Your task to perform on an android device: Open settings Image 0: 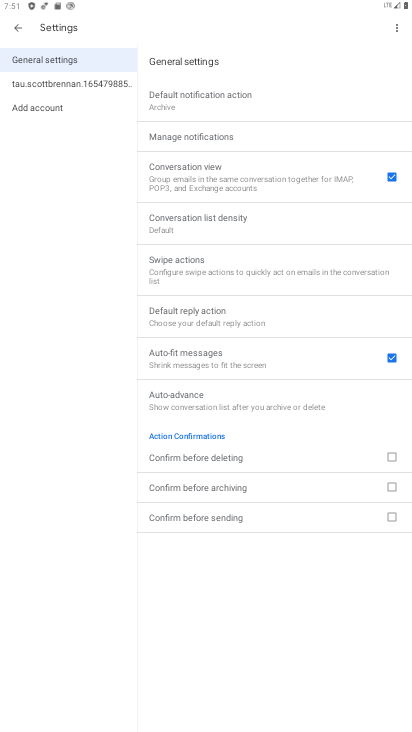
Step 0: press home button
Your task to perform on an android device: Open settings Image 1: 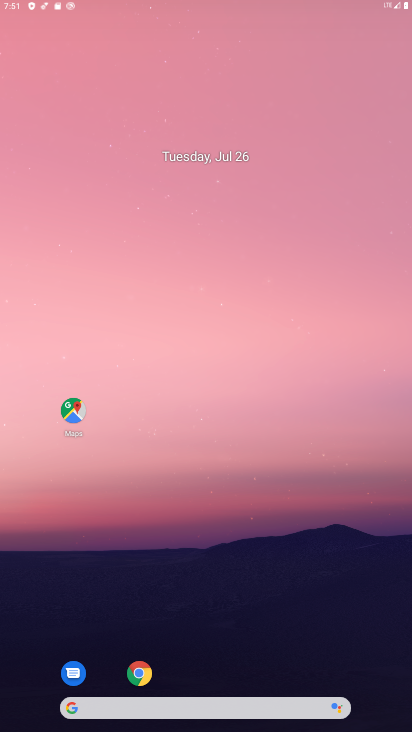
Step 1: drag from (377, 695) to (334, 9)
Your task to perform on an android device: Open settings Image 2: 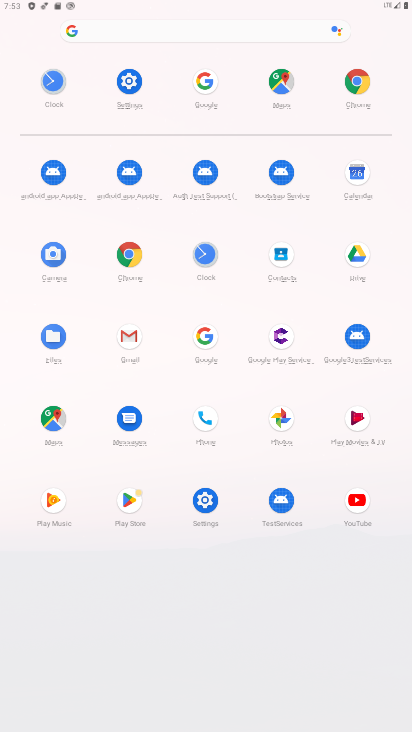
Step 2: click (194, 491)
Your task to perform on an android device: Open settings Image 3: 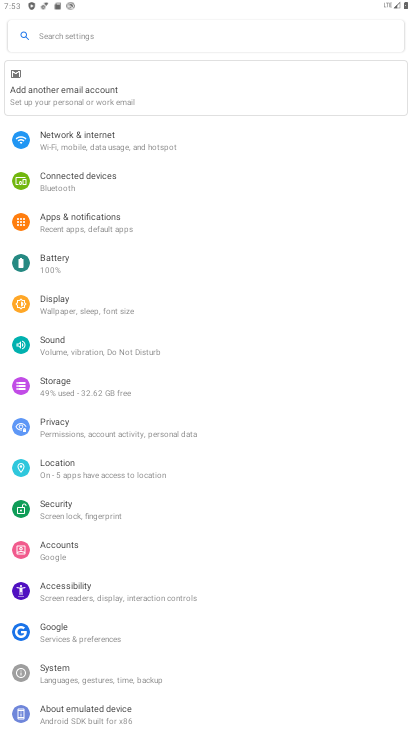
Step 3: task complete